Your task to perform on an android device: Open sound settings Image 0: 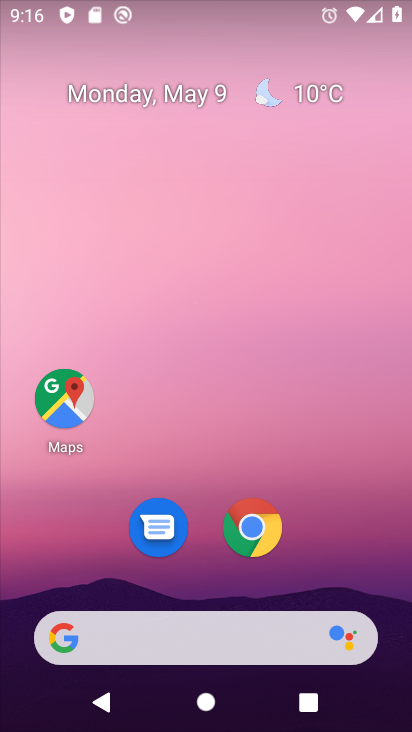
Step 0: drag from (390, 618) to (293, 58)
Your task to perform on an android device: Open sound settings Image 1: 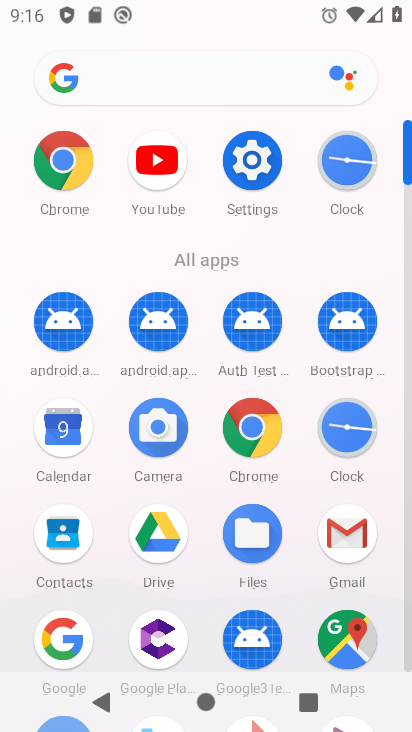
Step 1: click (408, 656)
Your task to perform on an android device: Open sound settings Image 2: 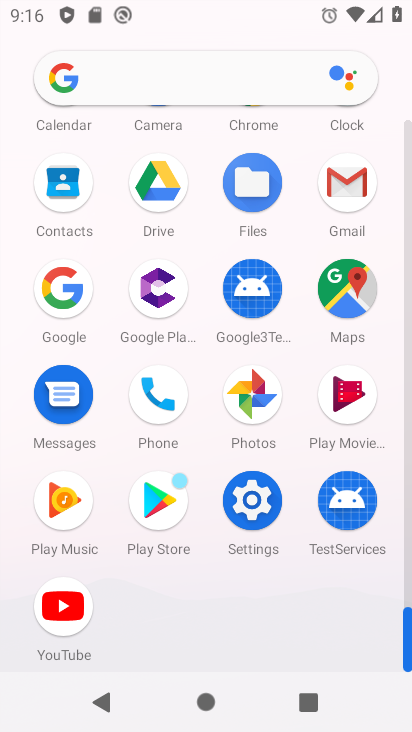
Step 2: click (253, 500)
Your task to perform on an android device: Open sound settings Image 3: 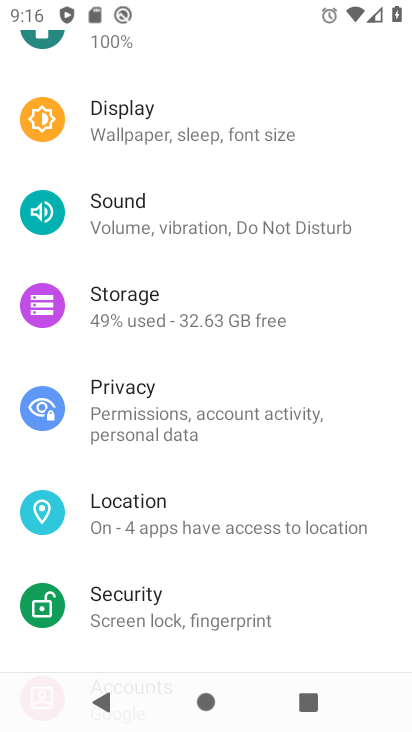
Step 3: click (121, 215)
Your task to perform on an android device: Open sound settings Image 4: 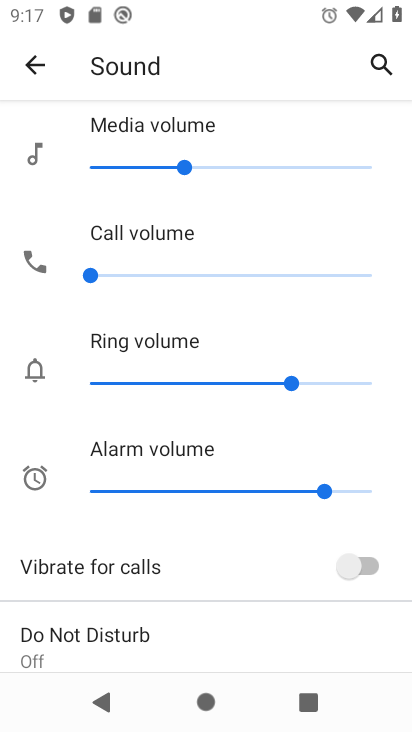
Step 4: task complete